Your task to perform on an android device: Open network settings Image 0: 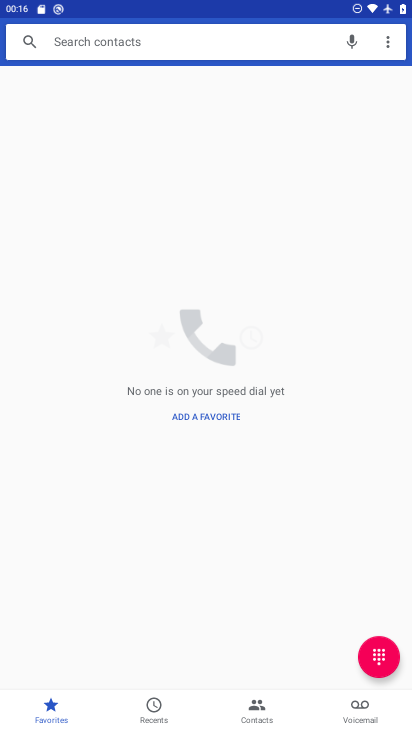
Step 0: press home button
Your task to perform on an android device: Open network settings Image 1: 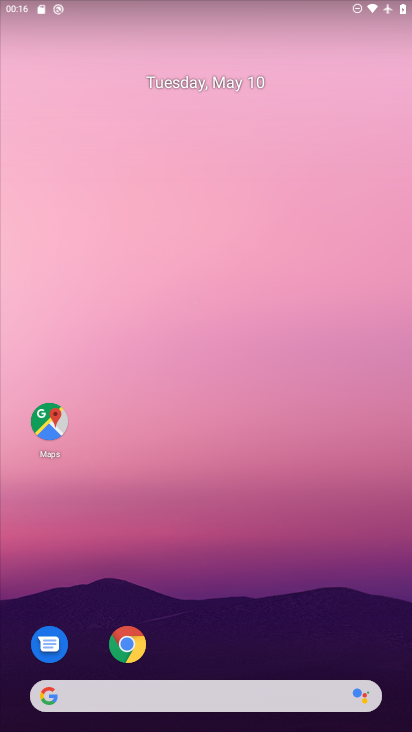
Step 1: drag from (182, 594) to (169, 298)
Your task to perform on an android device: Open network settings Image 2: 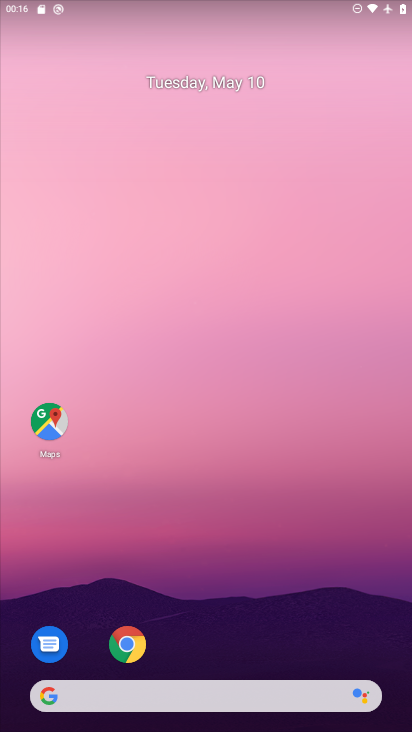
Step 2: drag from (186, 563) to (163, 289)
Your task to perform on an android device: Open network settings Image 3: 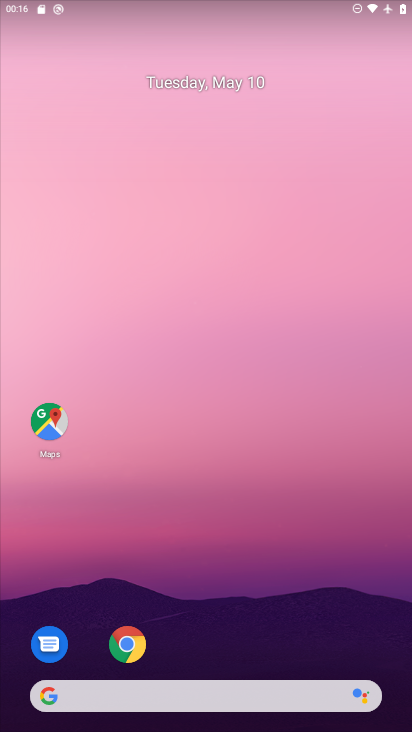
Step 3: drag from (235, 597) to (219, 254)
Your task to perform on an android device: Open network settings Image 4: 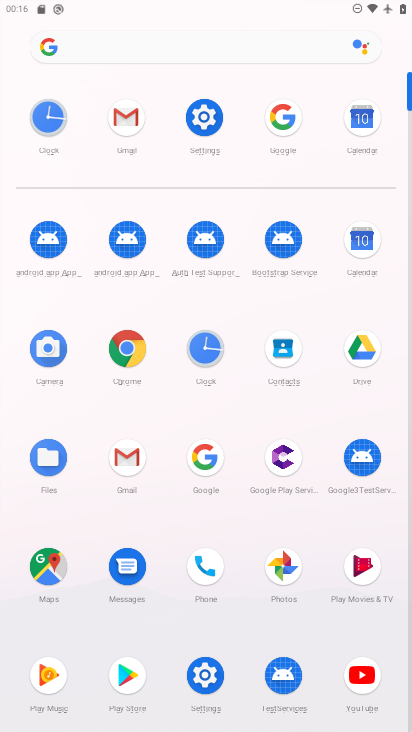
Step 4: click (222, 128)
Your task to perform on an android device: Open network settings Image 5: 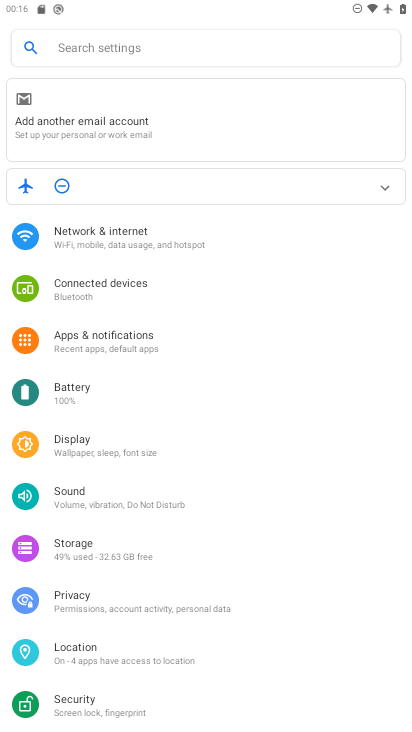
Step 5: click (166, 227)
Your task to perform on an android device: Open network settings Image 6: 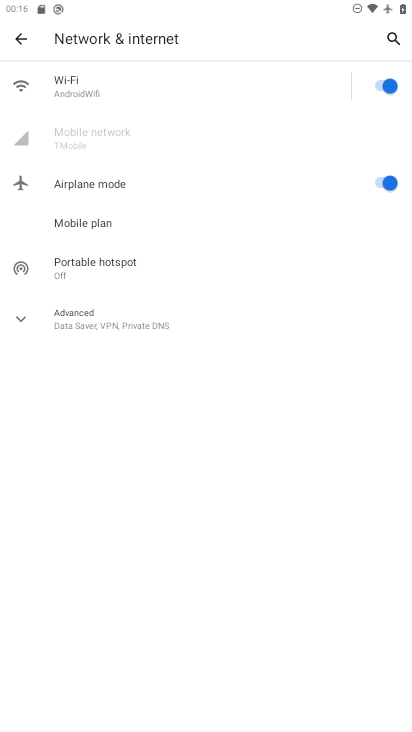
Step 6: task complete